Your task to perform on an android device: open app "Gmail" (install if not already installed) Image 0: 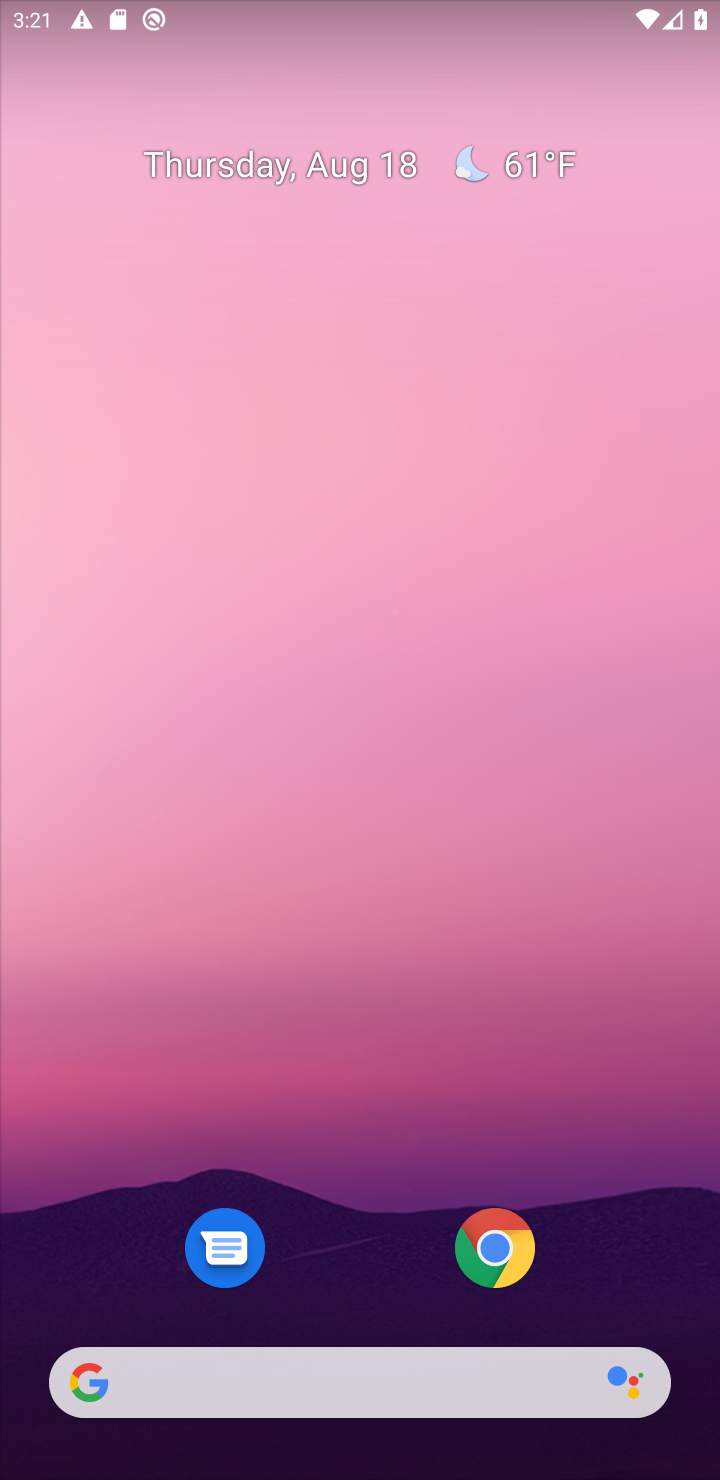
Step 0: drag from (307, 1191) to (378, 50)
Your task to perform on an android device: open app "Gmail" (install if not already installed) Image 1: 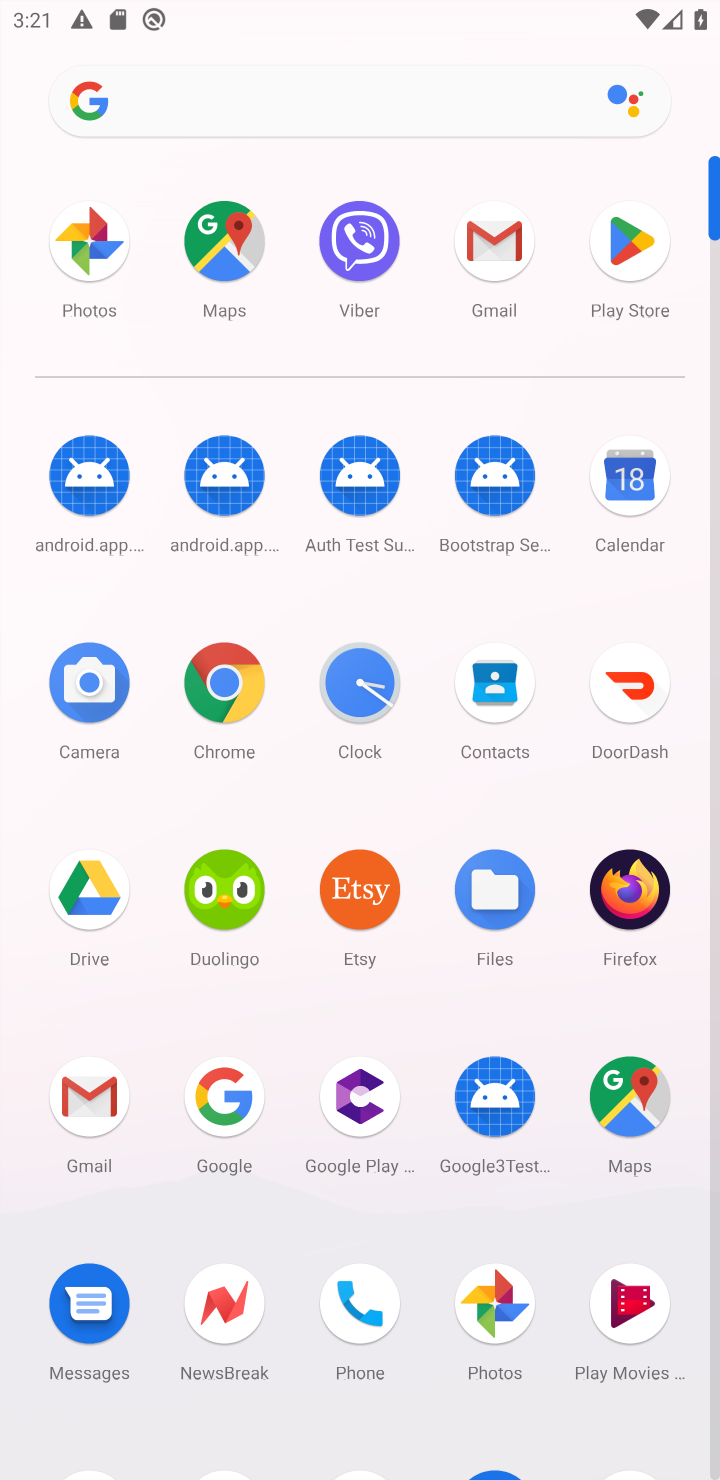
Step 1: click (95, 1090)
Your task to perform on an android device: open app "Gmail" (install if not already installed) Image 2: 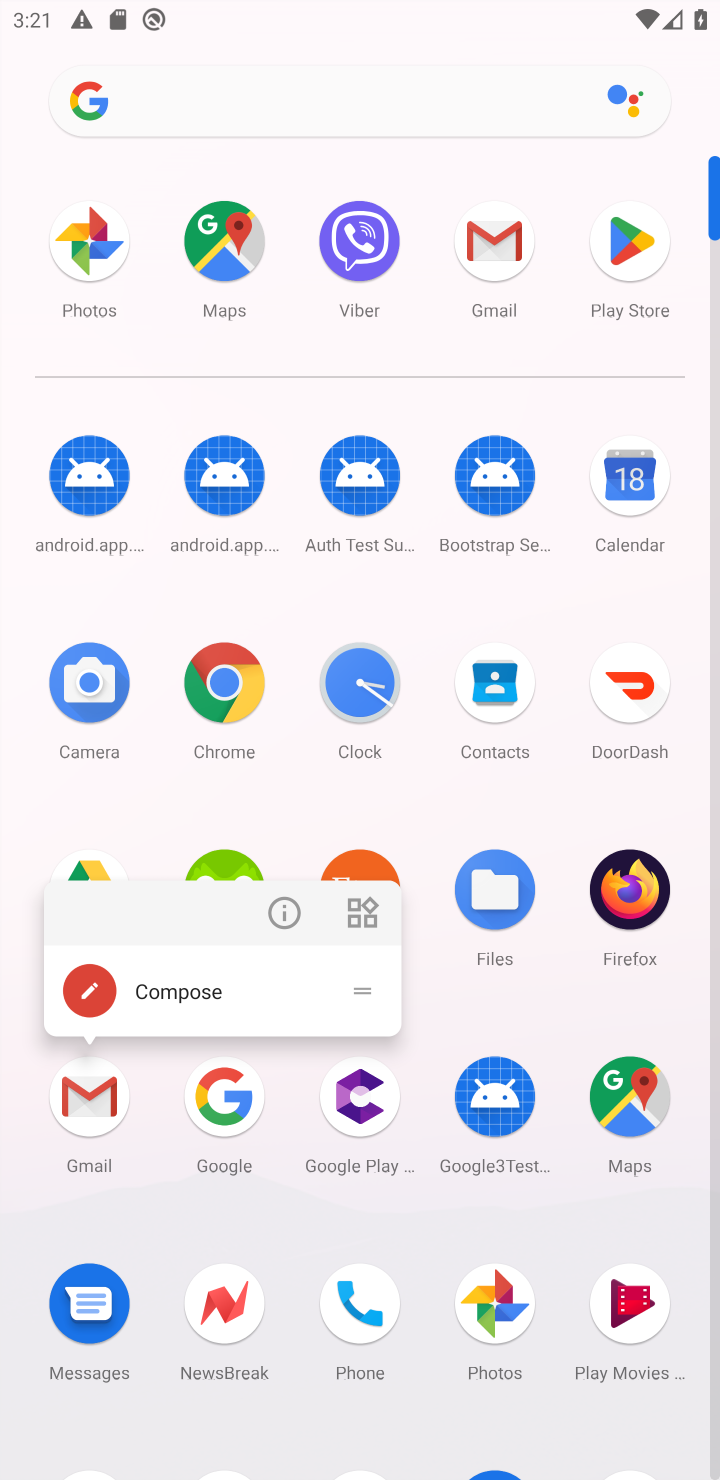
Step 2: click (86, 1090)
Your task to perform on an android device: open app "Gmail" (install if not already installed) Image 3: 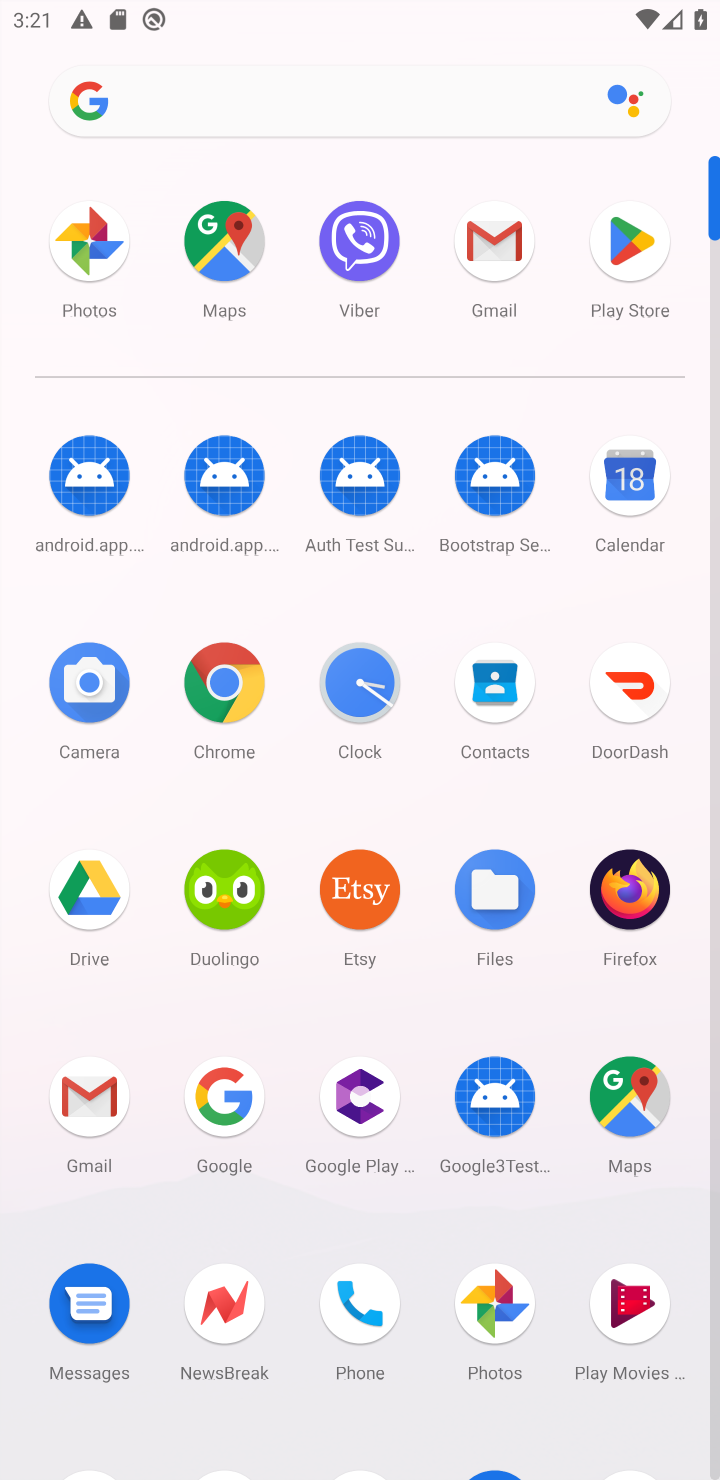
Step 3: click (90, 1090)
Your task to perform on an android device: open app "Gmail" (install if not already installed) Image 4: 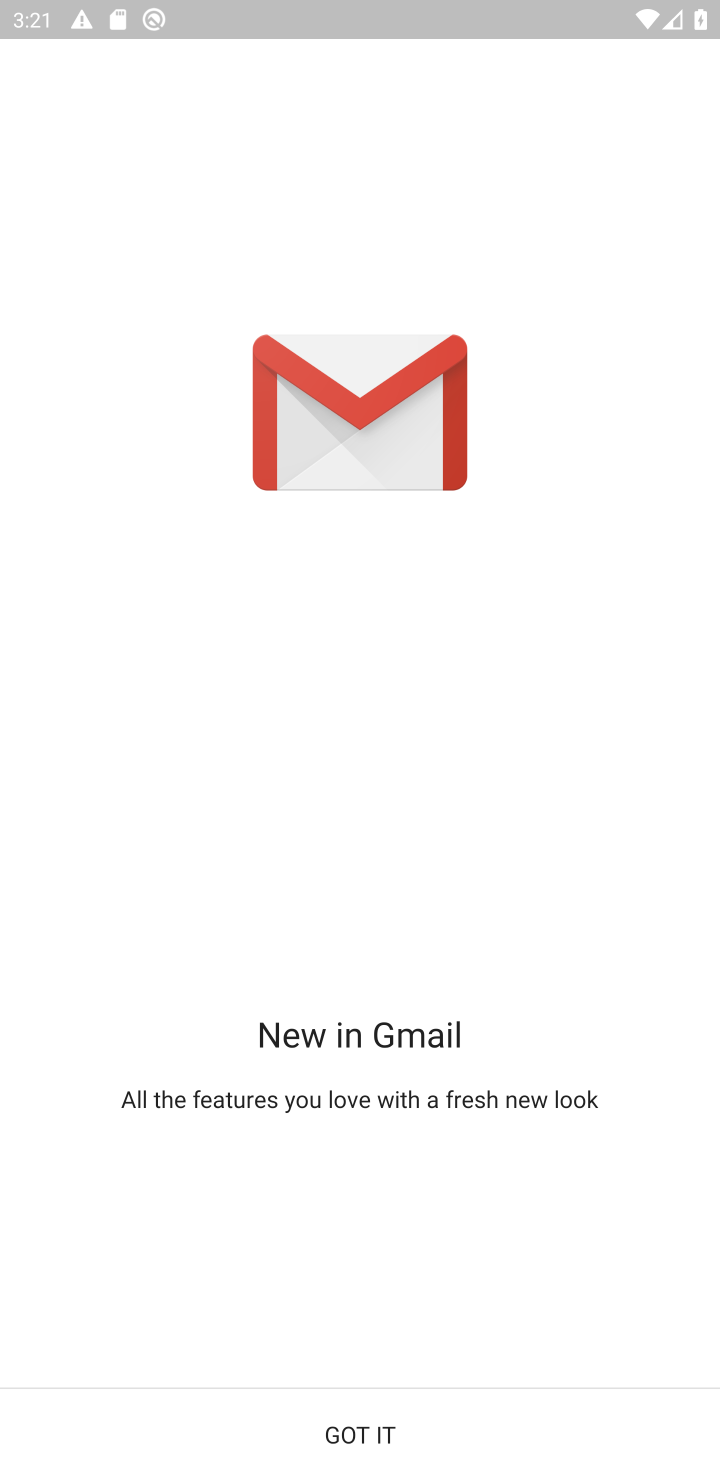
Step 4: click (348, 1438)
Your task to perform on an android device: open app "Gmail" (install if not already installed) Image 5: 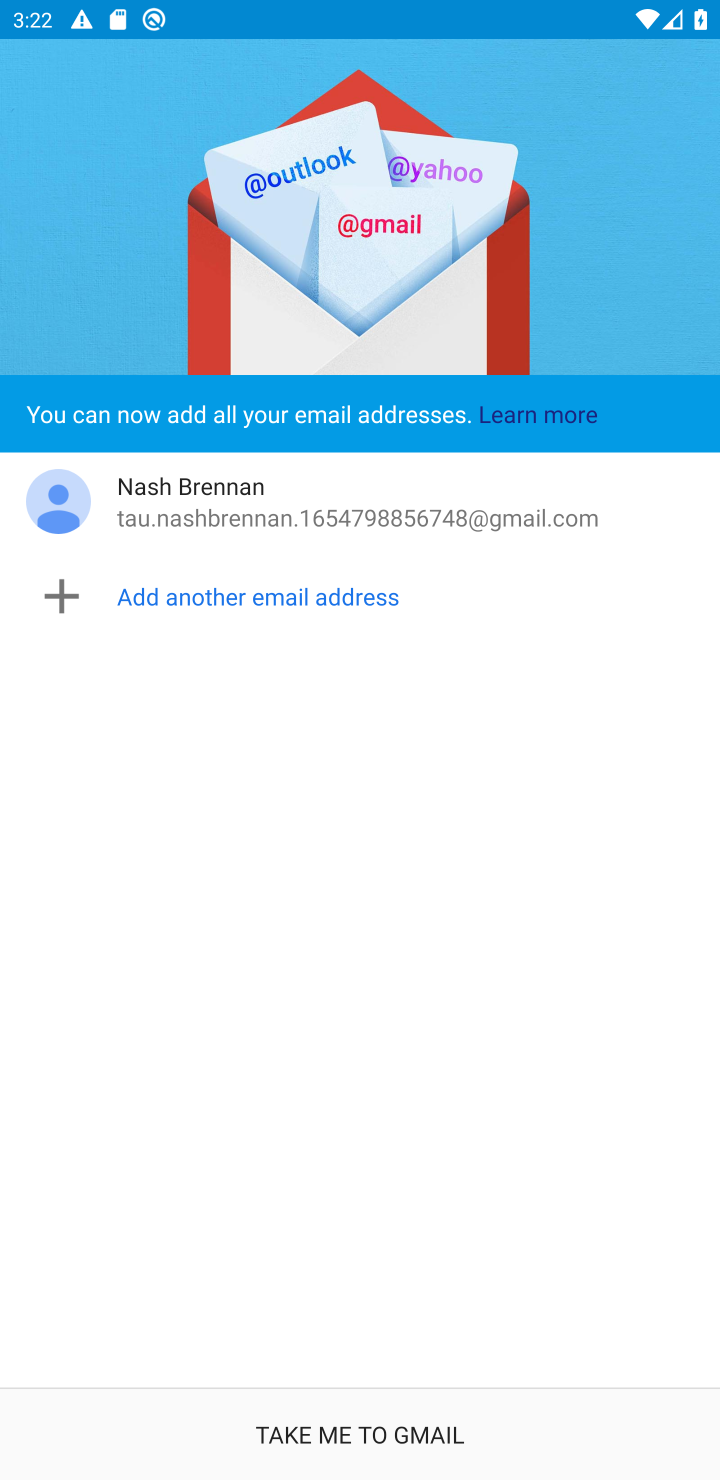
Step 5: click (362, 1409)
Your task to perform on an android device: open app "Gmail" (install if not already installed) Image 6: 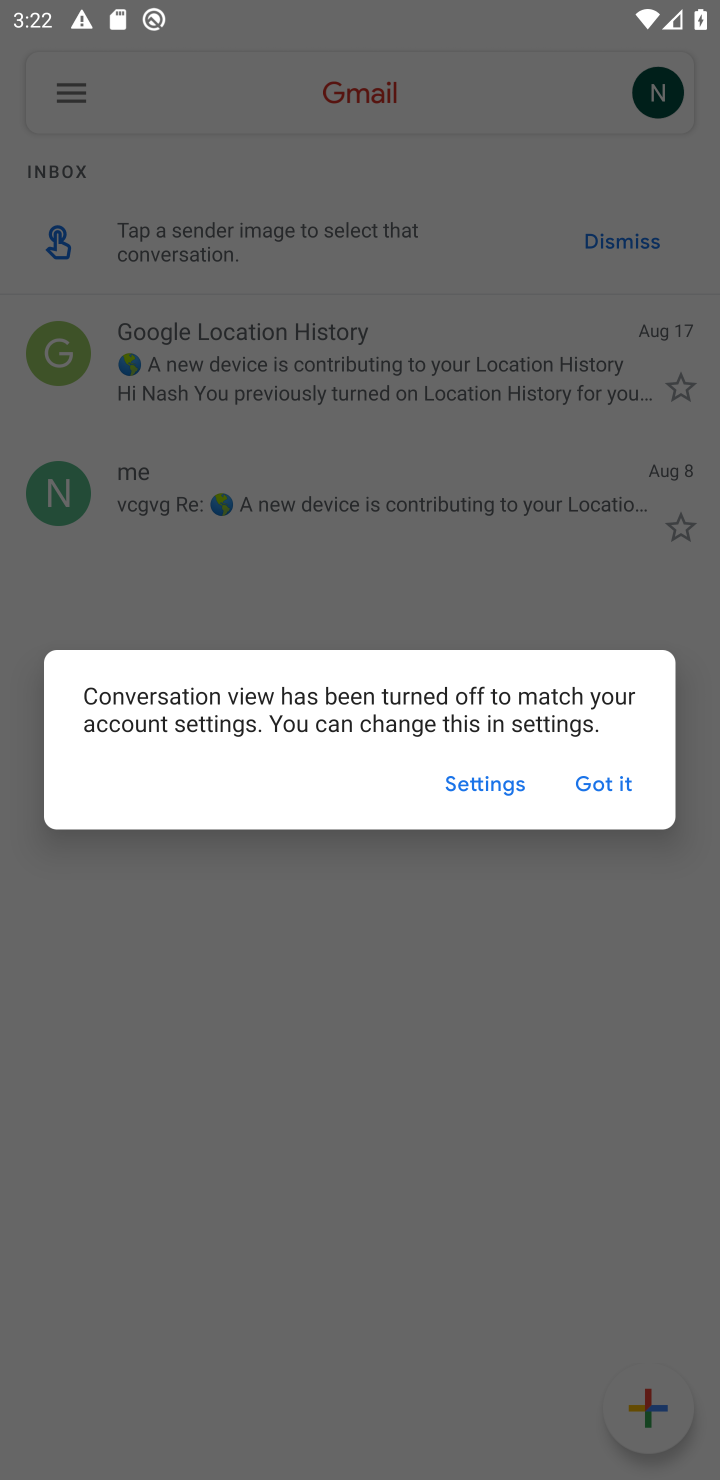
Step 6: click (594, 782)
Your task to perform on an android device: open app "Gmail" (install if not already installed) Image 7: 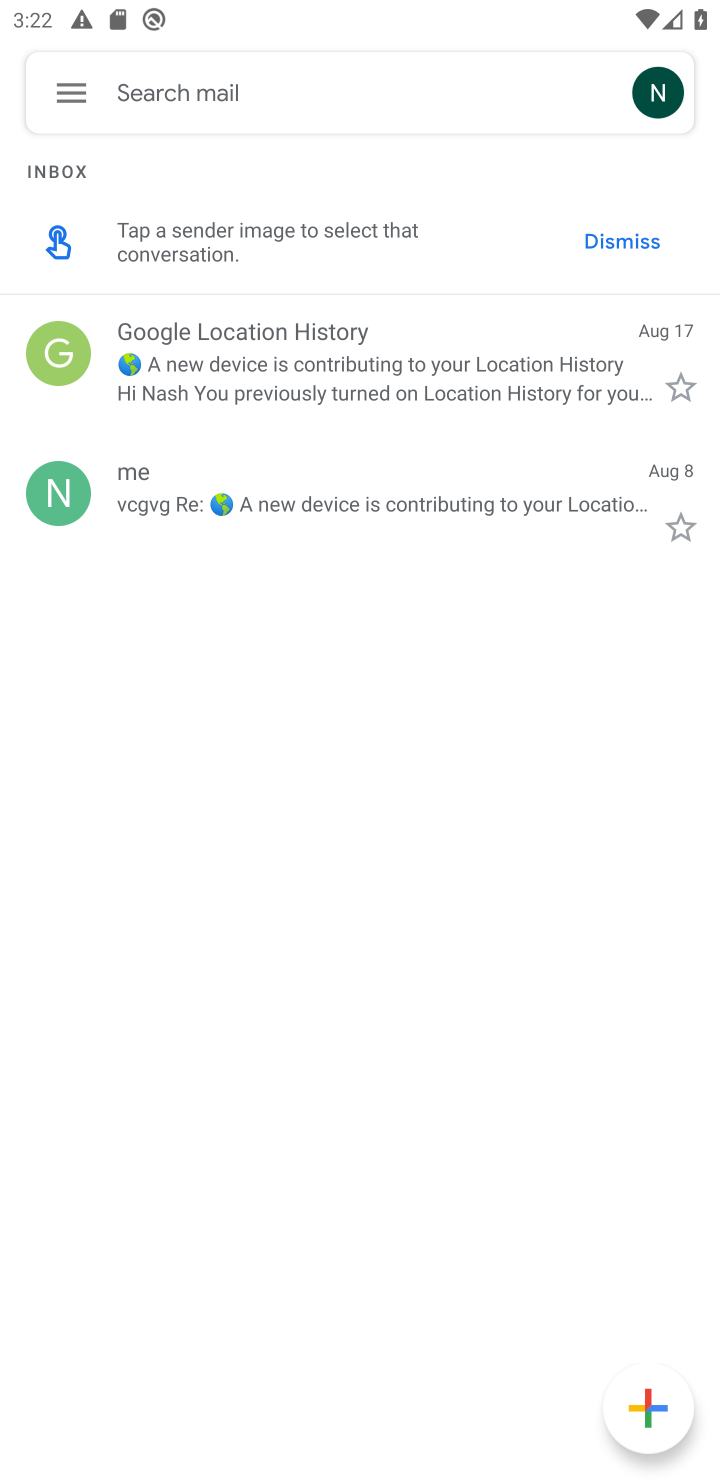
Step 7: task complete